Your task to perform on an android device: delete location history Image 0: 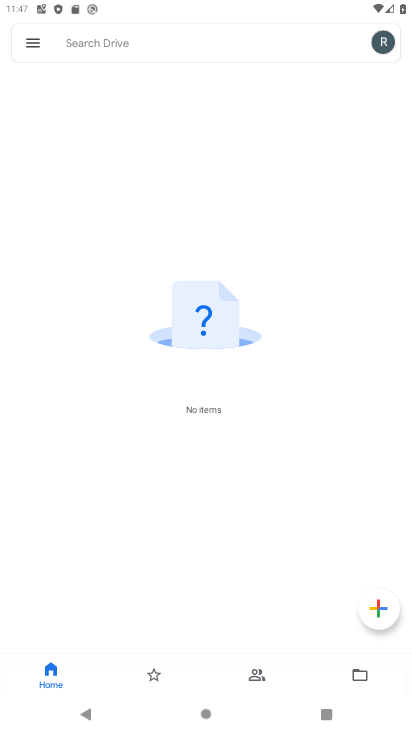
Step 0: press home button
Your task to perform on an android device: delete location history Image 1: 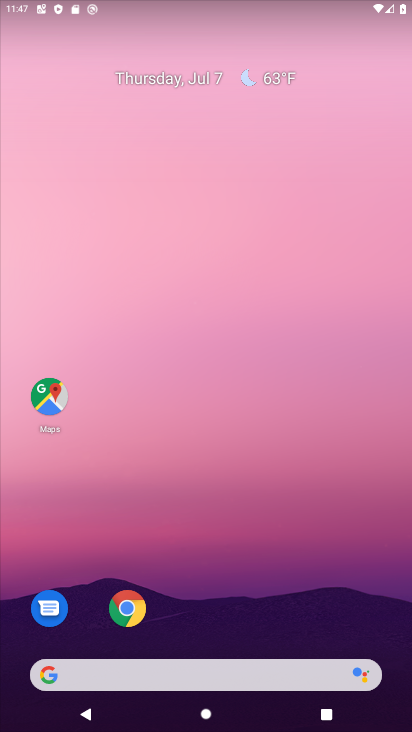
Step 1: drag from (71, 537) to (293, 131)
Your task to perform on an android device: delete location history Image 2: 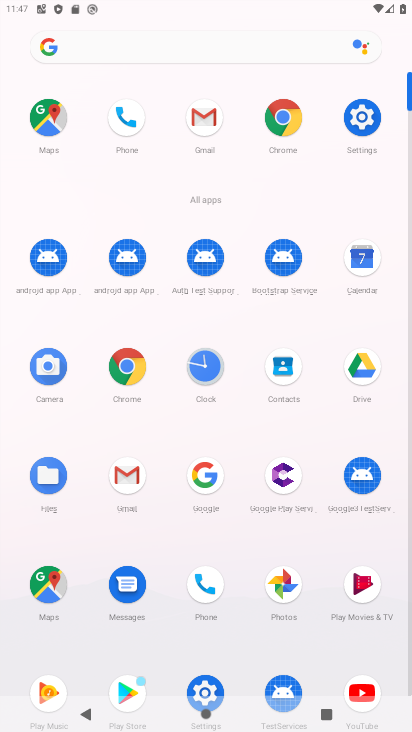
Step 2: click (332, 112)
Your task to perform on an android device: delete location history Image 3: 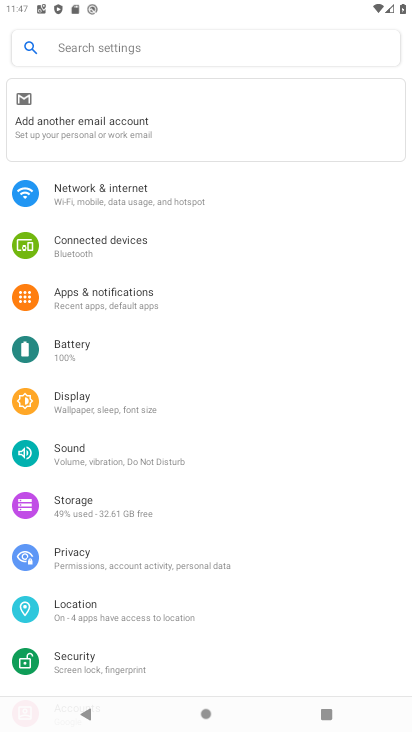
Step 3: click (111, 618)
Your task to perform on an android device: delete location history Image 4: 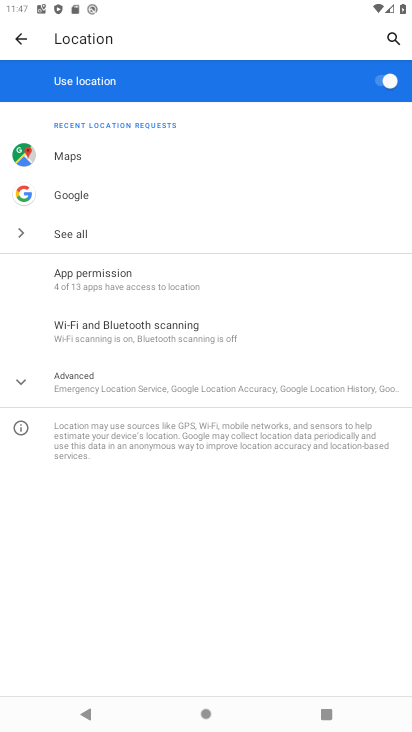
Step 4: click (190, 375)
Your task to perform on an android device: delete location history Image 5: 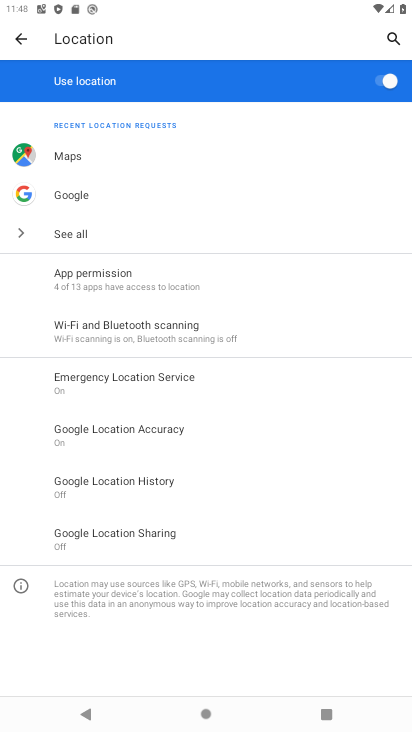
Step 5: click (164, 481)
Your task to perform on an android device: delete location history Image 6: 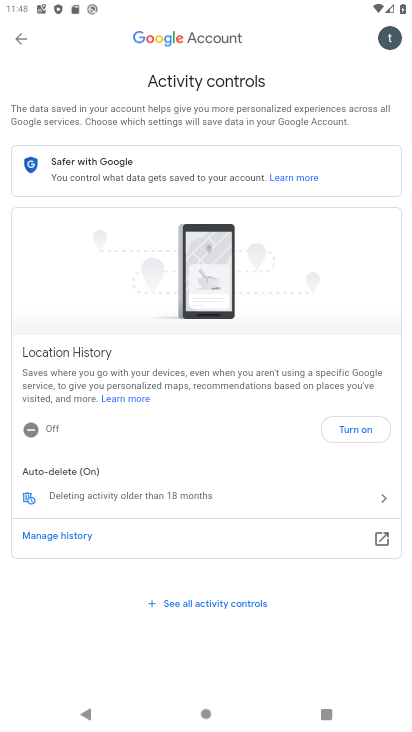
Step 6: click (64, 492)
Your task to perform on an android device: delete location history Image 7: 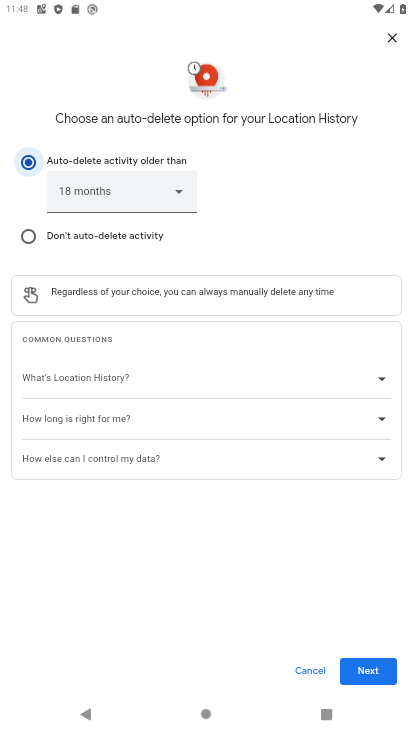
Step 7: click (357, 675)
Your task to perform on an android device: delete location history Image 8: 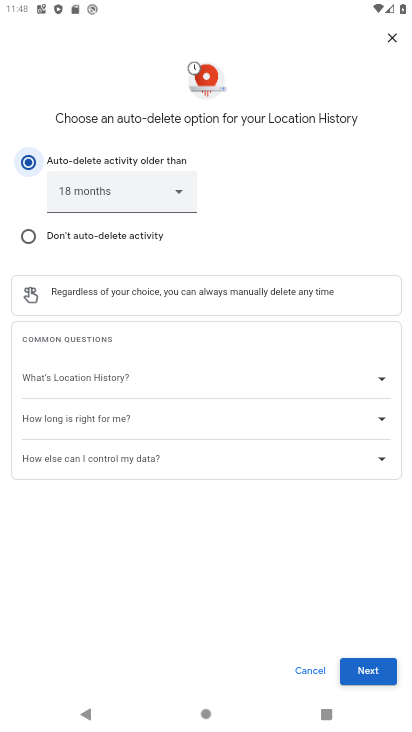
Step 8: click (358, 669)
Your task to perform on an android device: delete location history Image 9: 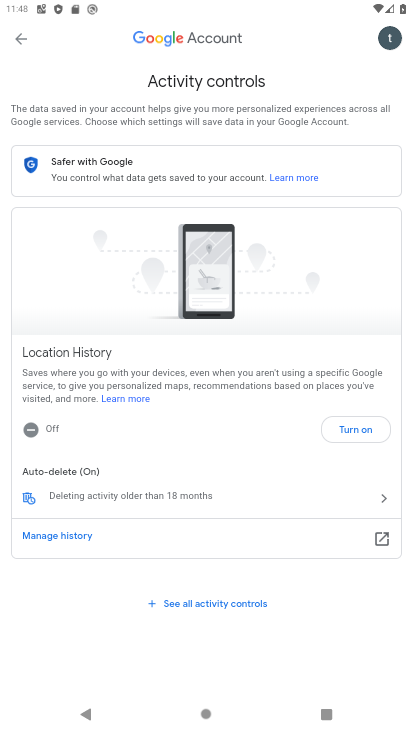
Step 9: task complete